Your task to perform on an android device: Toggle the flashlight Image 0: 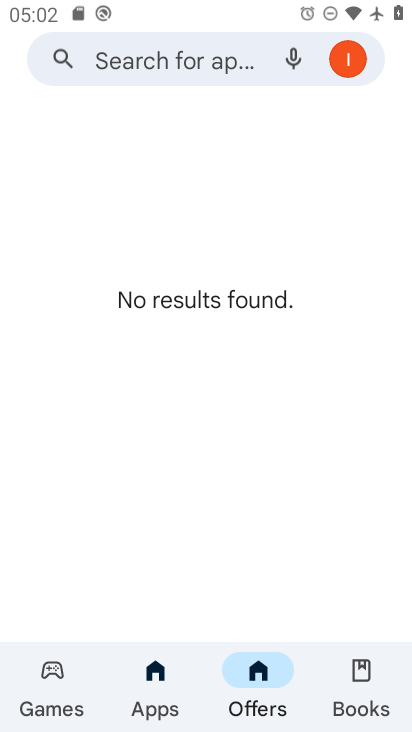
Step 0: press home button
Your task to perform on an android device: Toggle the flashlight Image 1: 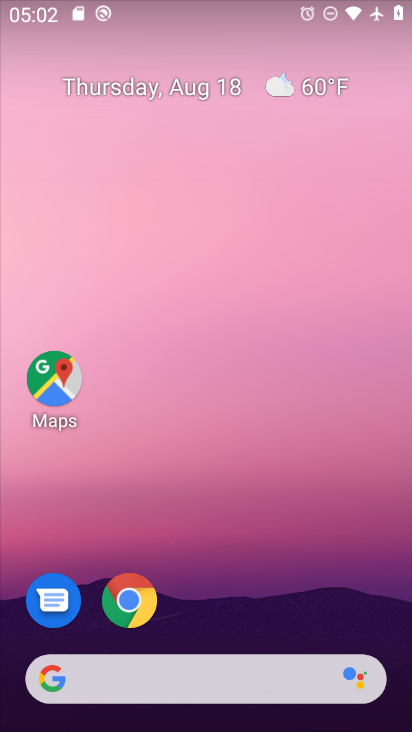
Step 1: task complete